Your task to perform on an android device: change keyboard looks Image 0: 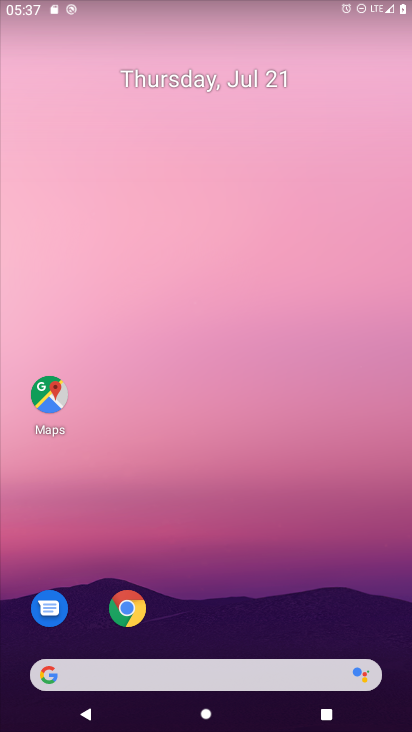
Step 0: drag from (280, 683) to (389, 46)
Your task to perform on an android device: change keyboard looks Image 1: 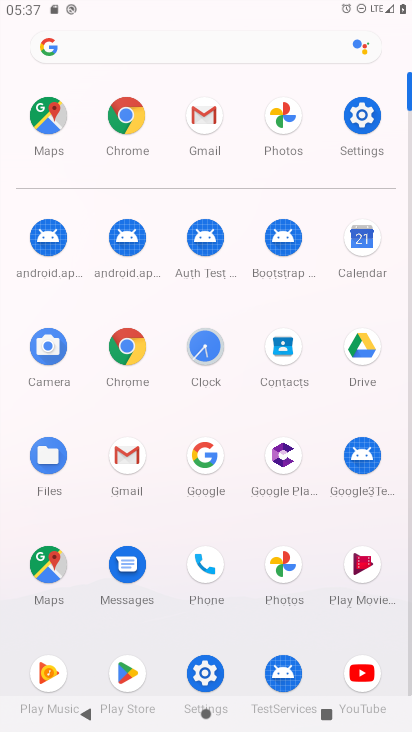
Step 1: click (366, 111)
Your task to perform on an android device: change keyboard looks Image 2: 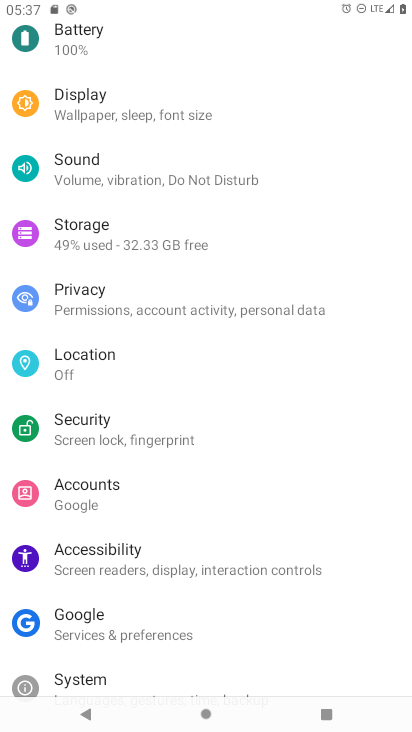
Step 2: drag from (177, 661) to (226, 270)
Your task to perform on an android device: change keyboard looks Image 3: 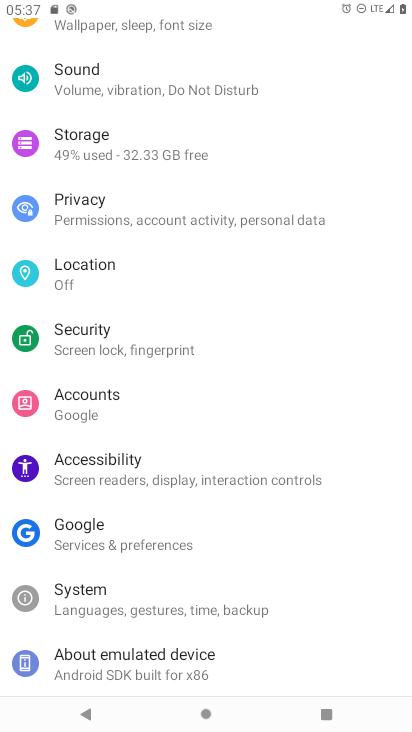
Step 3: click (161, 598)
Your task to perform on an android device: change keyboard looks Image 4: 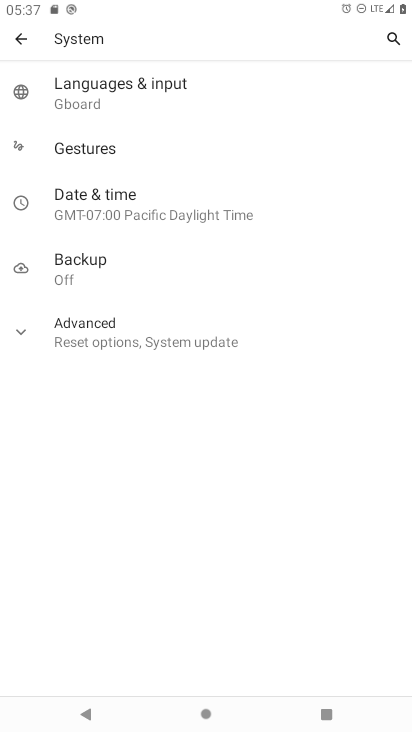
Step 4: click (133, 84)
Your task to perform on an android device: change keyboard looks Image 5: 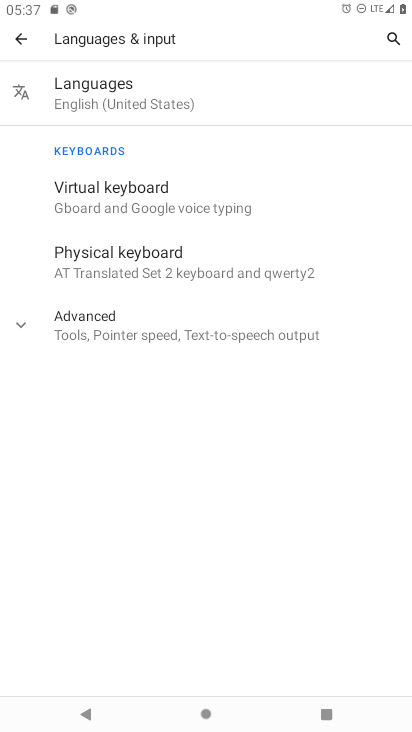
Step 5: click (117, 201)
Your task to perform on an android device: change keyboard looks Image 6: 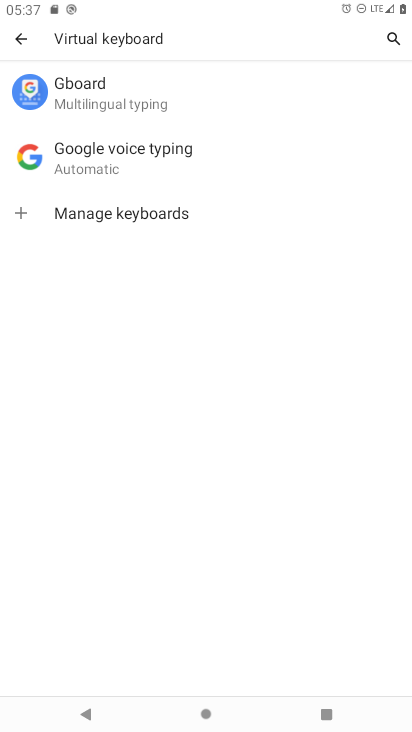
Step 6: click (111, 98)
Your task to perform on an android device: change keyboard looks Image 7: 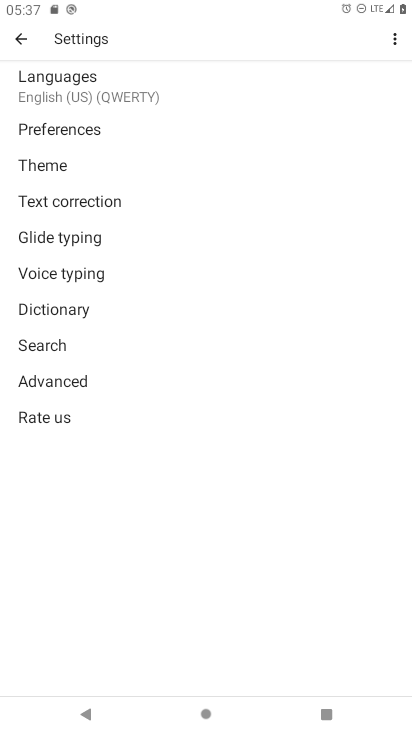
Step 7: click (67, 161)
Your task to perform on an android device: change keyboard looks Image 8: 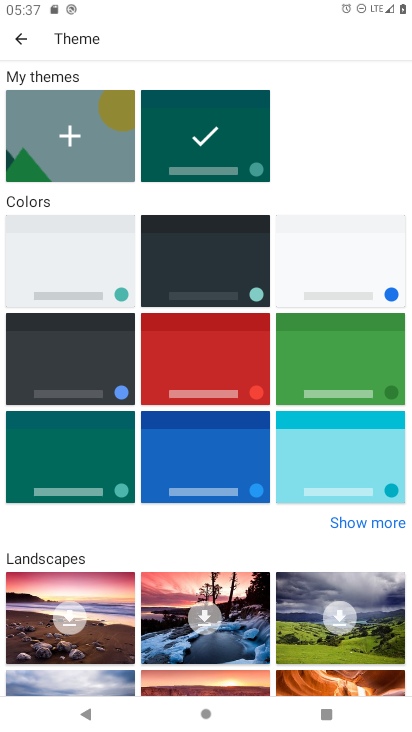
Step 8: click (219, 346)
Your task to perform on an android device: change keyboard looks Image 9: 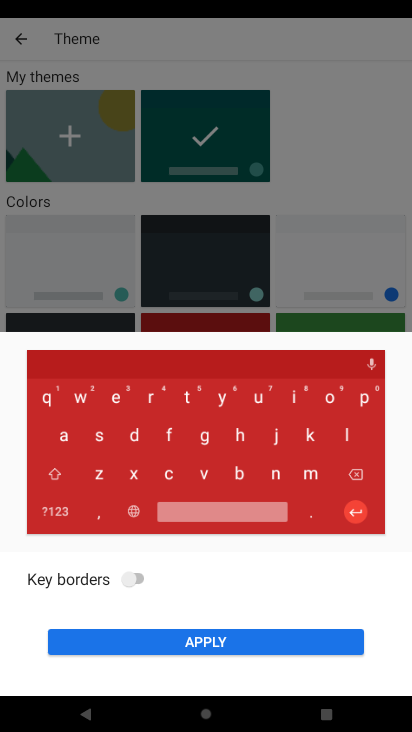
Step 9: click (230, 637)
Your task to perform on an android device: change keyboard looks Image 10: 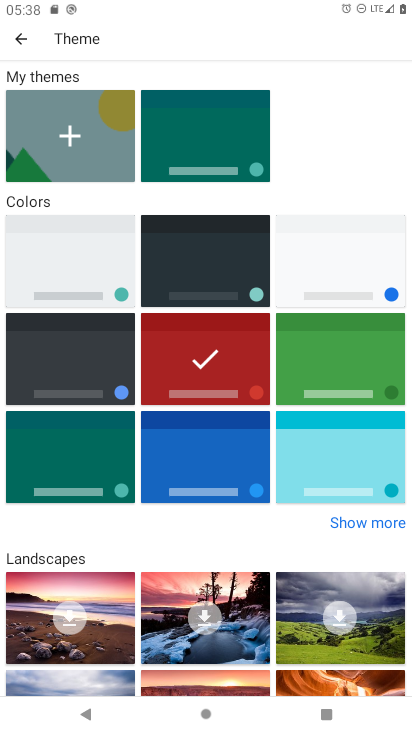
Step 10: task complete